Your task to perform on an android device: Add "energizer triple a" to the cart on walmart, then select checkout. Image 0: 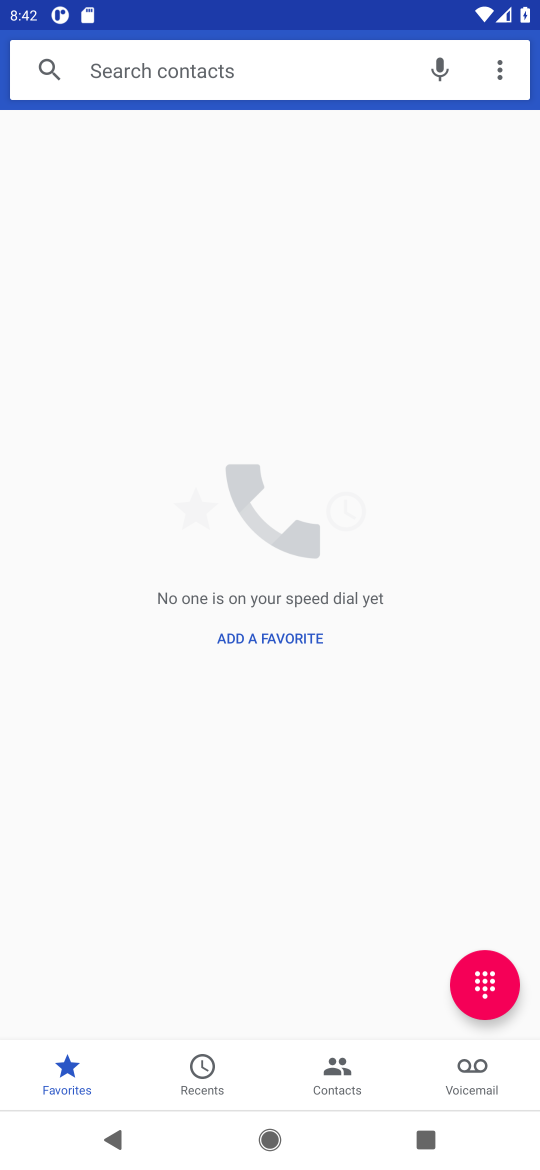
Step 0: press home button
Your task to perform on an android device: Add "energizer triple a" to the cart on walmart, then select checkout. Image 1: 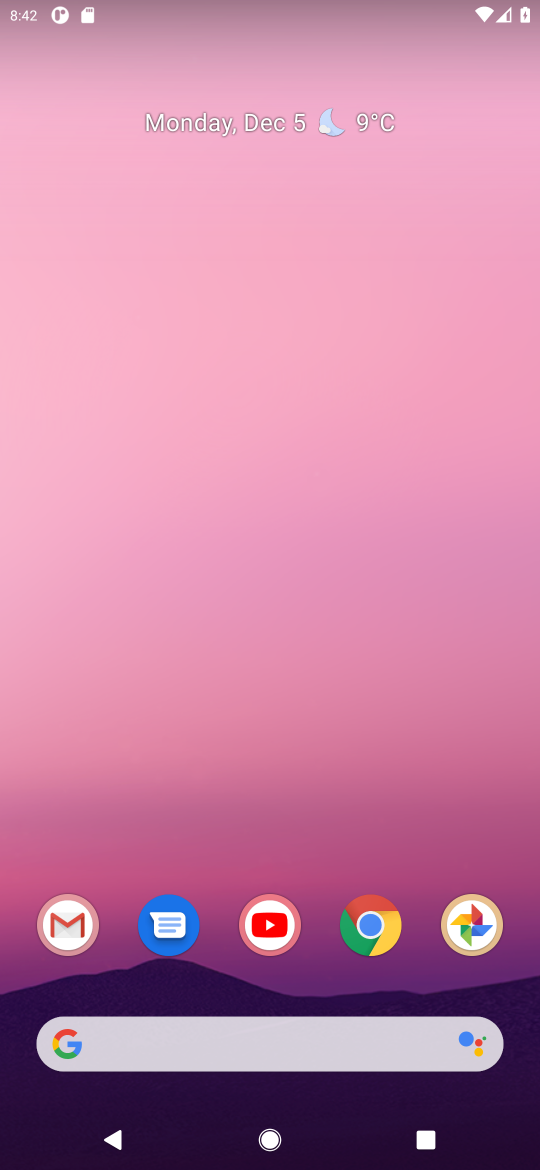
Step 1: click (376, 929)
Your task to perform on an android device: Add "energizer triple a" to the cart on walmart, then select checkout. Image 2: 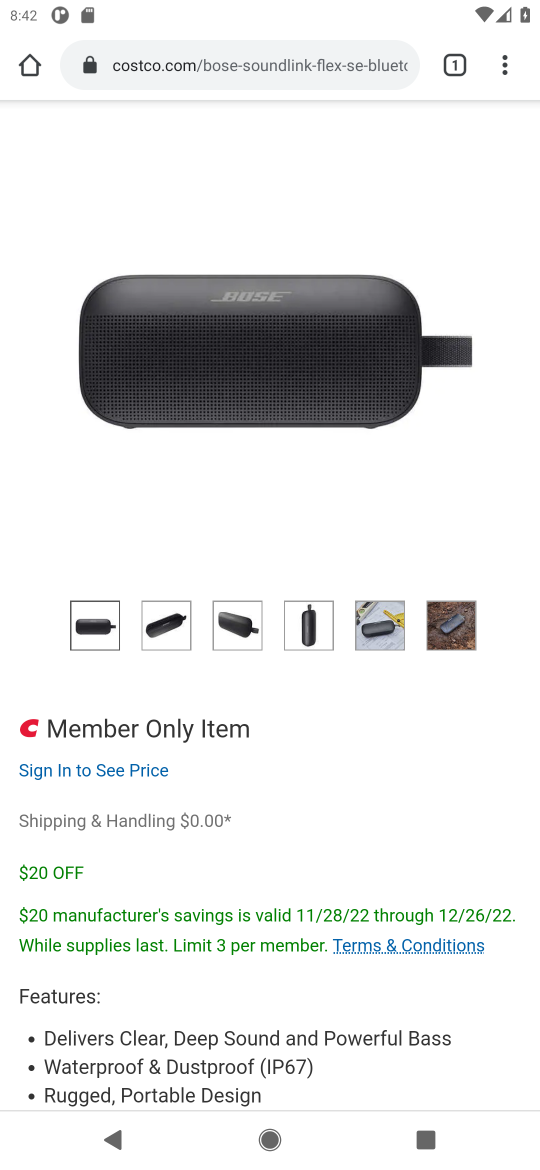
Step 2: click (273, 73)
Your task to perform on an android device: Add "energizer triple a" to the cart on walmart, then select checkout. Image 3: 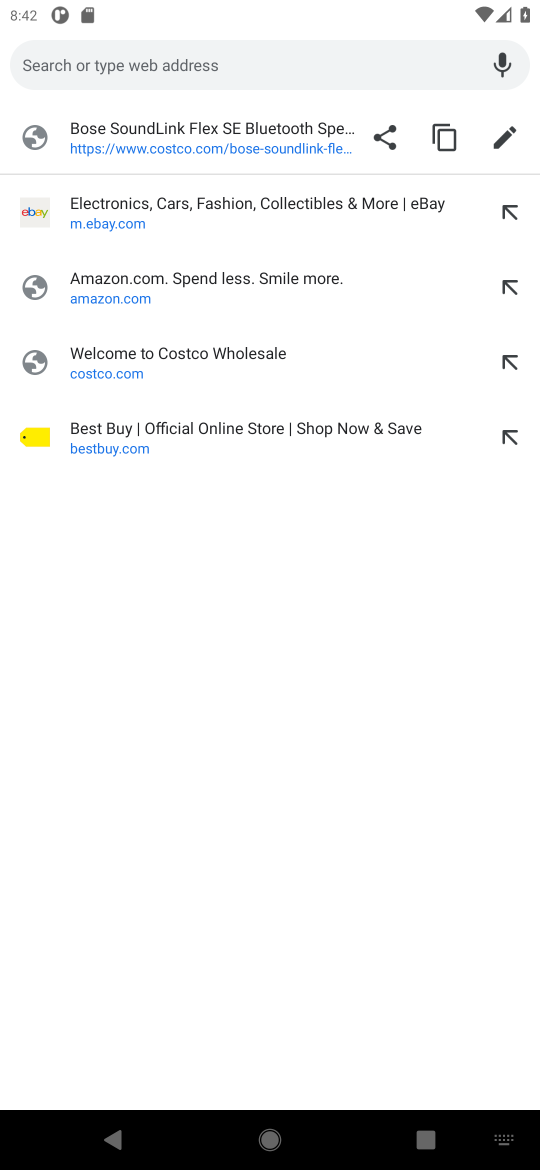
Step 3: type "walmart.com"
Your task to perform on an android device: Add "energizer triple a" to the cart on walmart, then select checkout. Image 4: 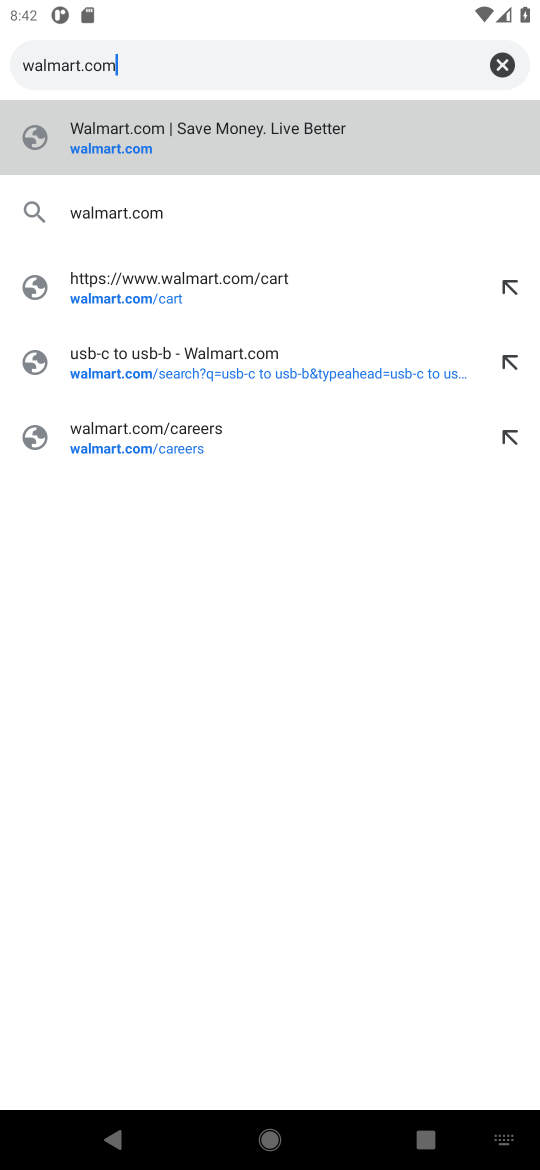
Step 4: click (111, 148)
Your task to perform on an android device: Add "energizer triple a" to the cart on walmart, then select checkout. Image 5: 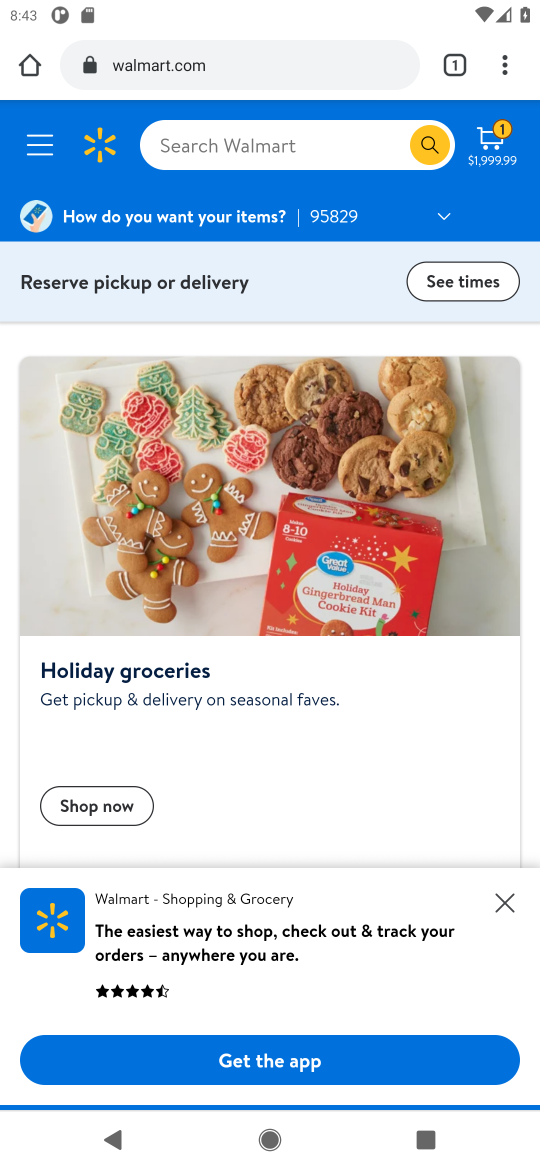
Step 5: click (267, 145)
Your task to perform on an android device: Add "energizer triple a" to the cart on walmart, then select checkout. Image 6: 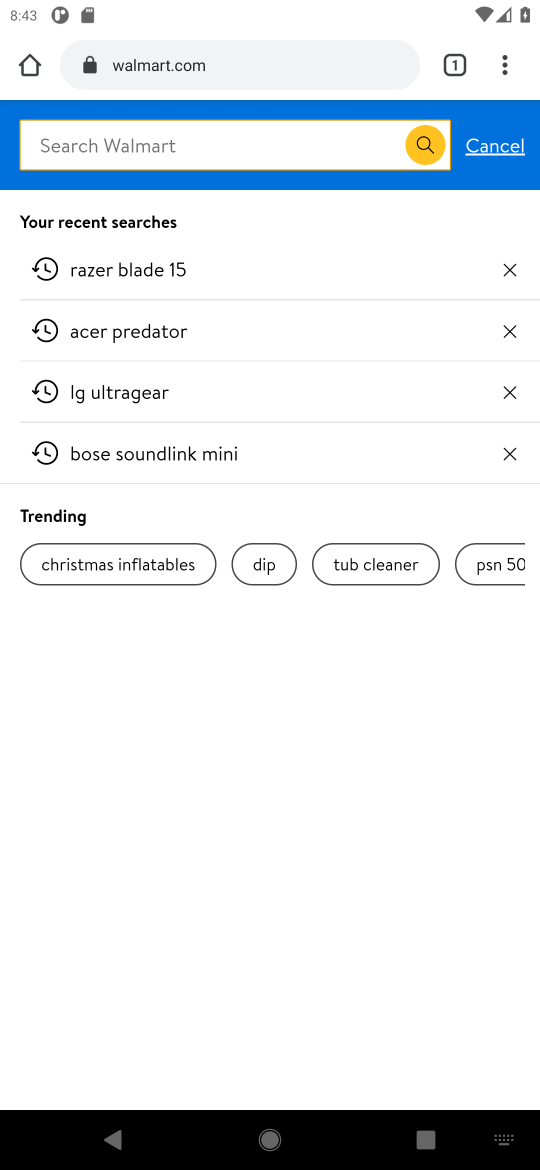
Step 6: type "energizer triple a"
Your task to perform on an android device: Add "energizer triple a" to the cart on walmart, then select checkout. Image 7: 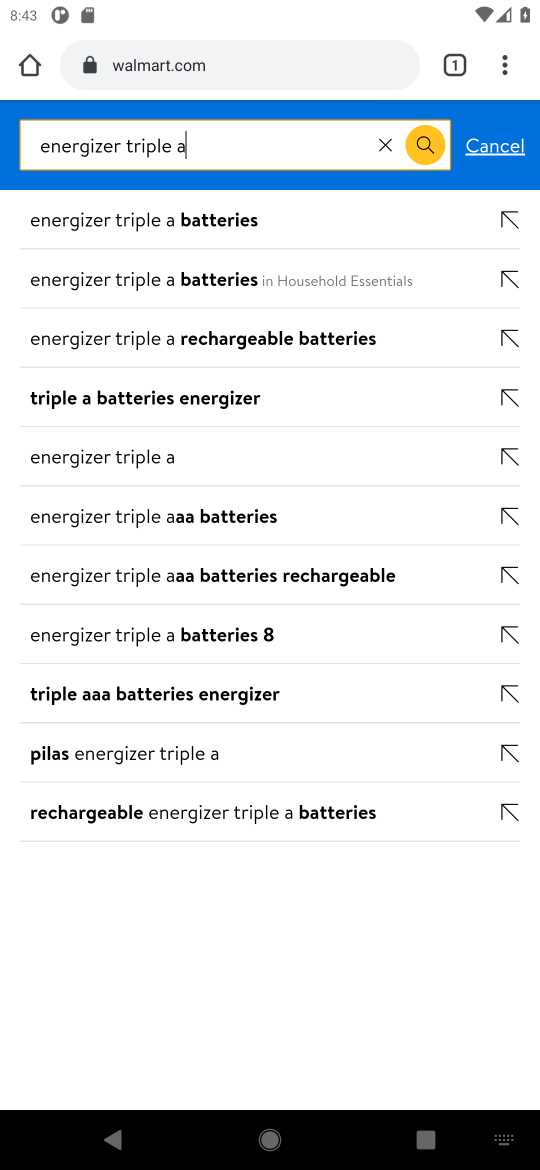
Step 7: click (114, 226)
Your task to perform on an android device: Add "energizer triple a" to the cart on walmart, then select checkout. Image 8: 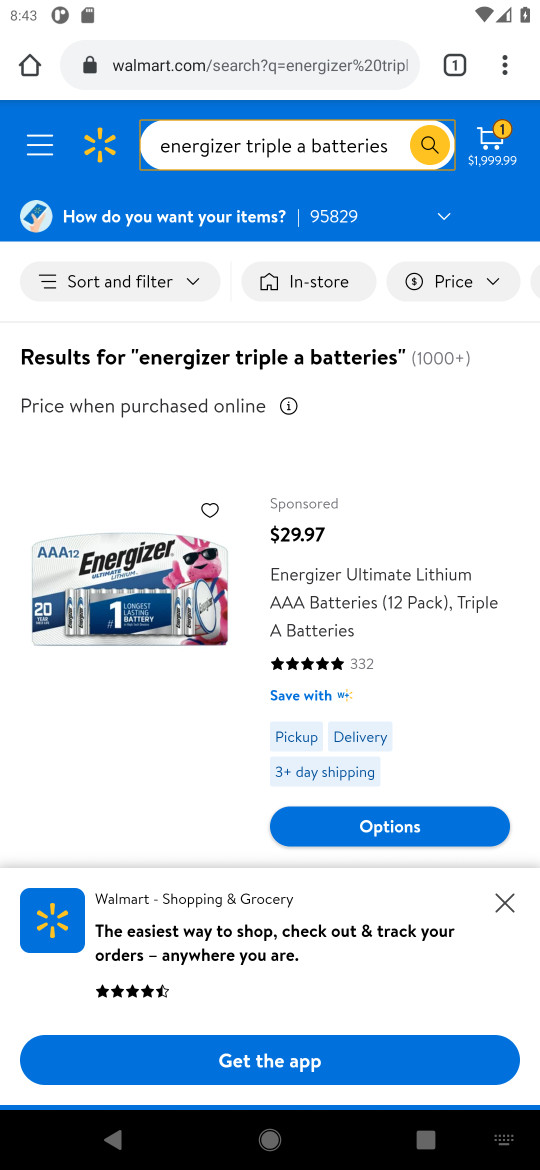
Step 8: click (428, 591)
Your task to perform on an android device: Add "energizer triple a" to the cart on walmart, then select checkout. Image 9: 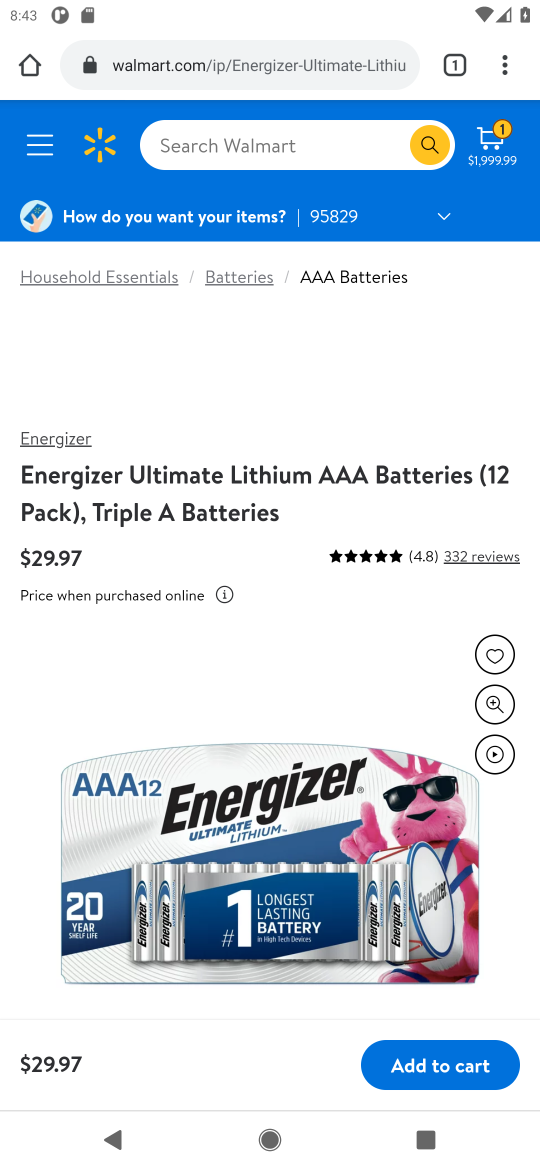
Step 9: click (431, 1076)
Your task to perform on an android device: Add "energizer triple a" to the cart on walmart, then select checkout. Image 10: 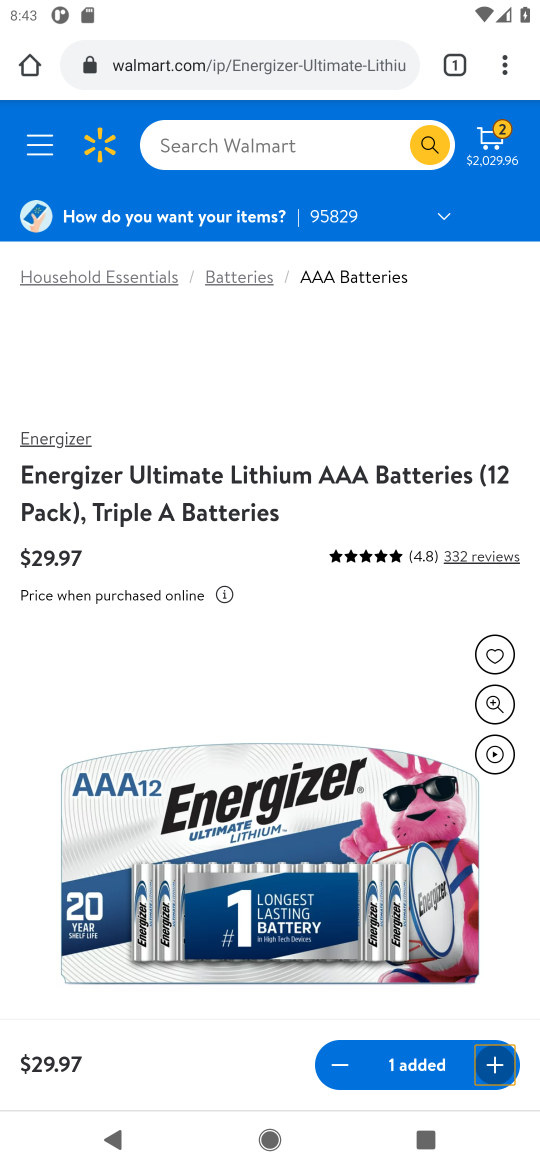
Step 10: click (494, 154)
Your task to perform on an android device: Add "energizer triple a" to the cart on walmart, then select checkout. Image 11: 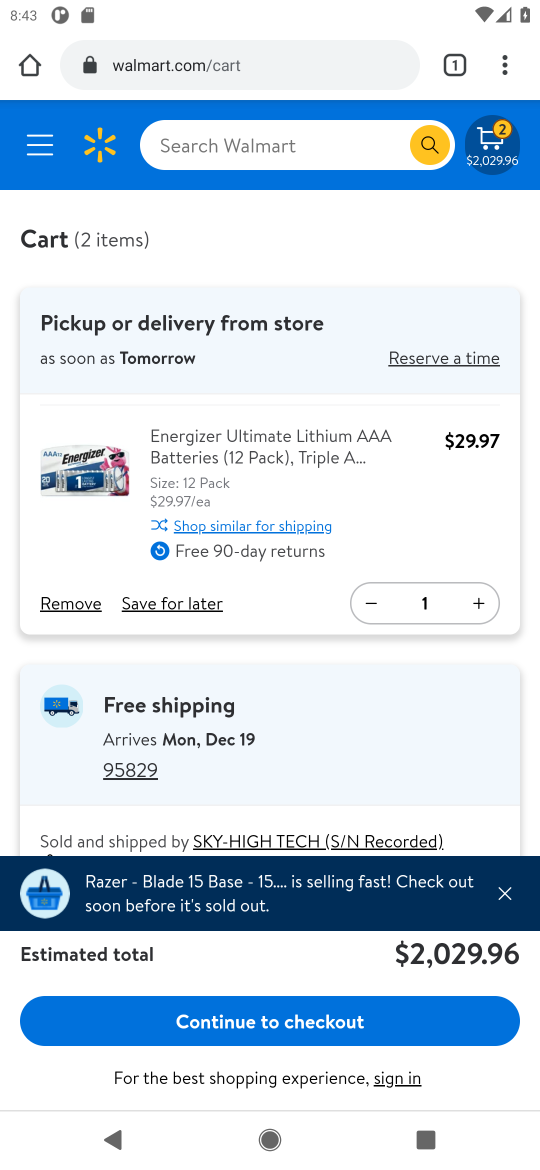
Step 11: click (230, 1028)
Your task to perform on an android device: Add "energizer triple a" to the cart on walmart, then select checkout. Image 12: 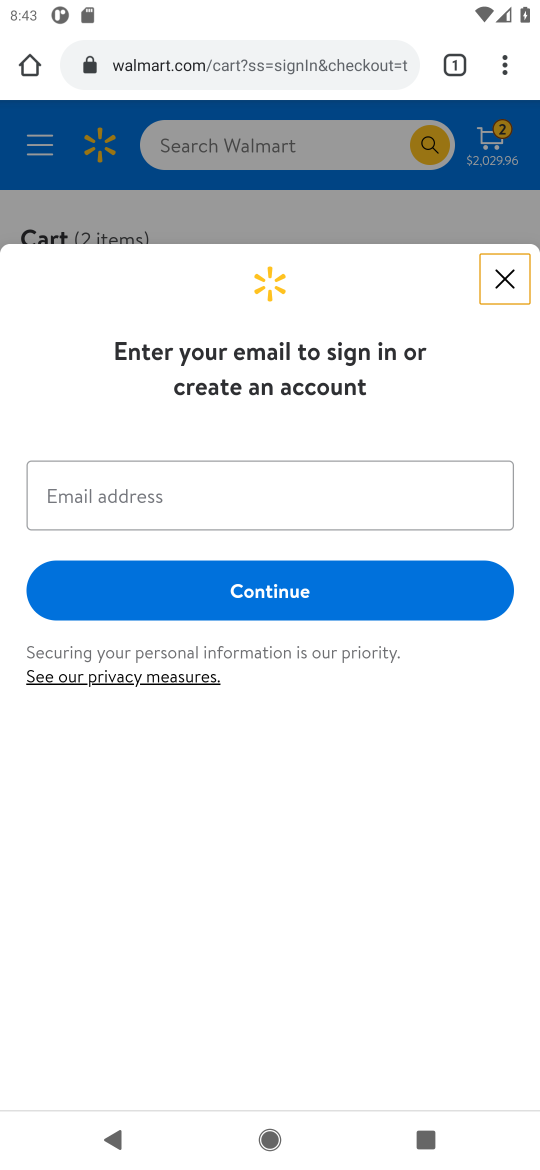
Step 12: task complete